Your task to perform on an android device: change notification settings in the gmail app Image 0: 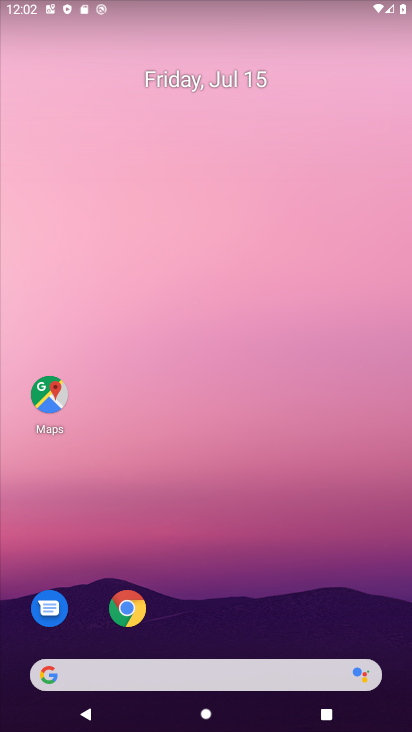
Step 0: drag from (286, 687) to (316, 16)
Your task to perform on an android device: change notification settings in the gmail app Image 1: 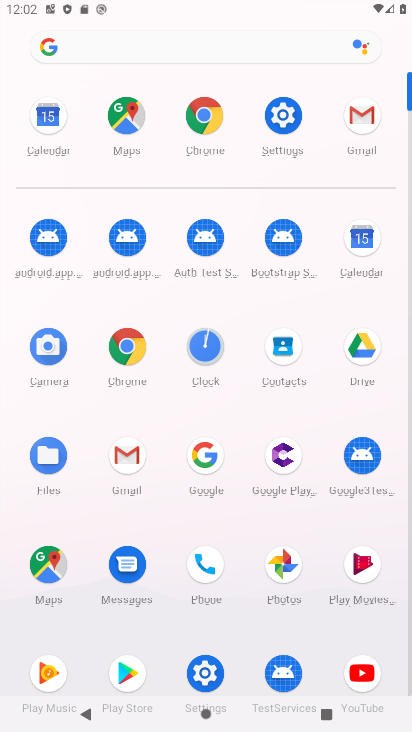
Step 1: click (132, 454)
Your task to perform on an android device: change notification settings in the gmail app Image 2: 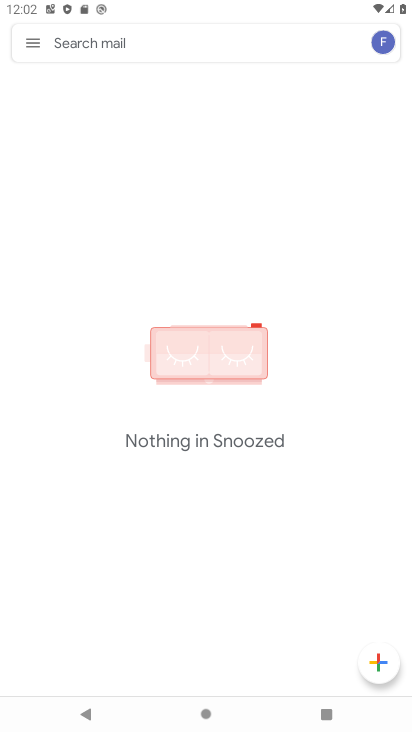
Step 2: click (30, 28)
Your task to perform on an android device: change notification settings in the gmail app Image 3: 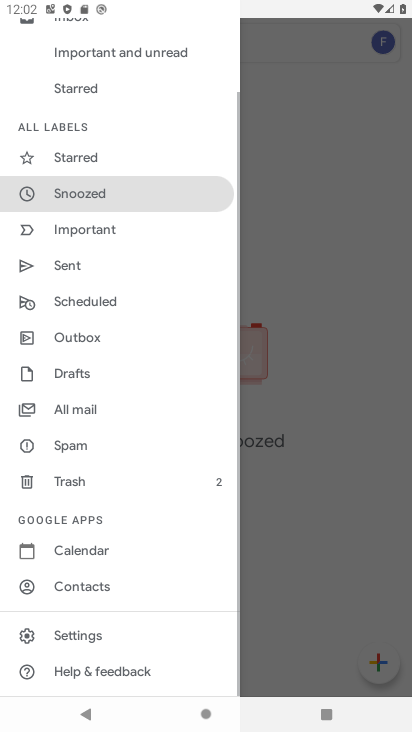
Step 3: click (90, 637)
Your task to perform on an android device: change notification settings in the gmail app Image 4: 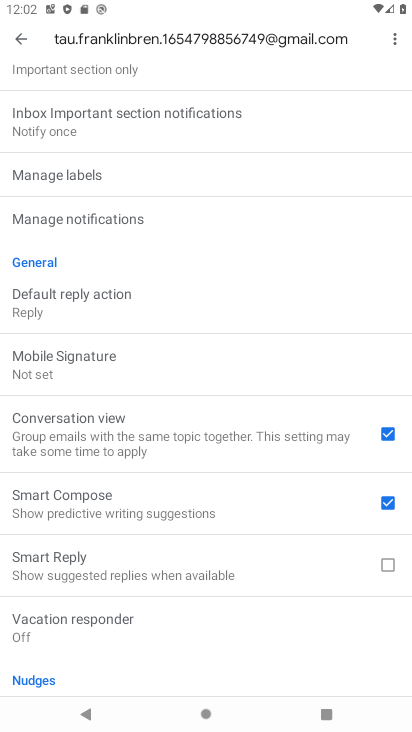
Step 4: click (84, 221)
Your task to perform on an android device: change notification settings in the gmail app Image 5: 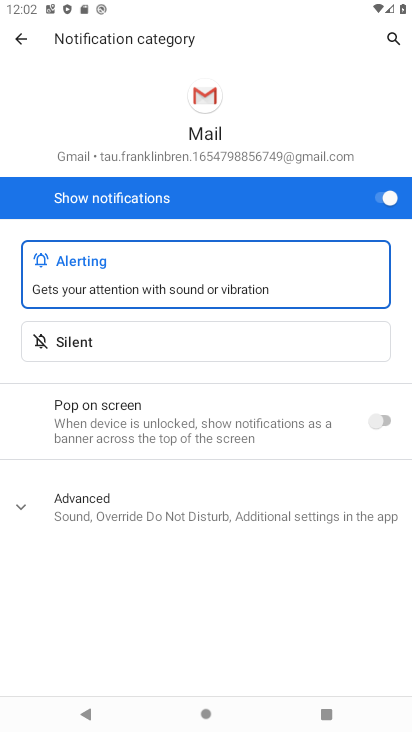
Step 5: click (382, 198)
Your task to perform on an android device: change notification settings in the gmail app Image 6: 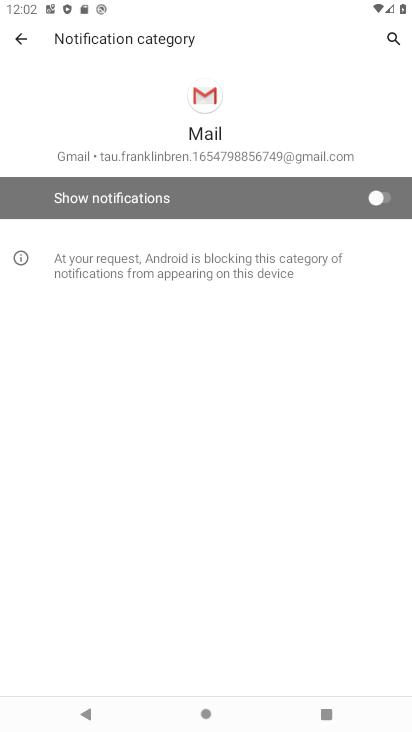
Step 6: task complete